Your task to perform on an android device: delete location history Image 0: 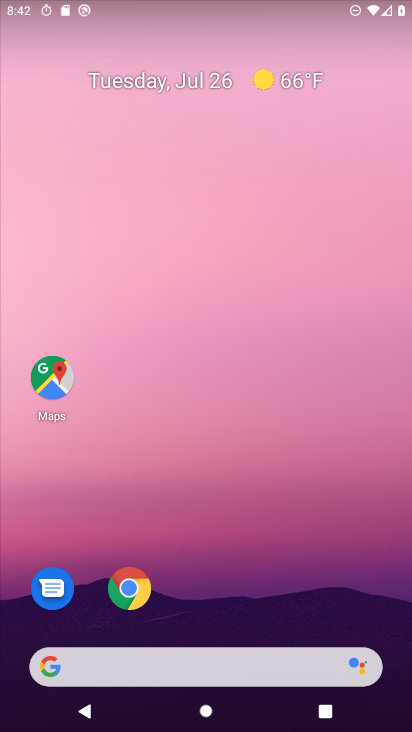
Step 0: drag from (225, 690) to (219, 273)
Your task to perform on an android device: delete location history Image 1: 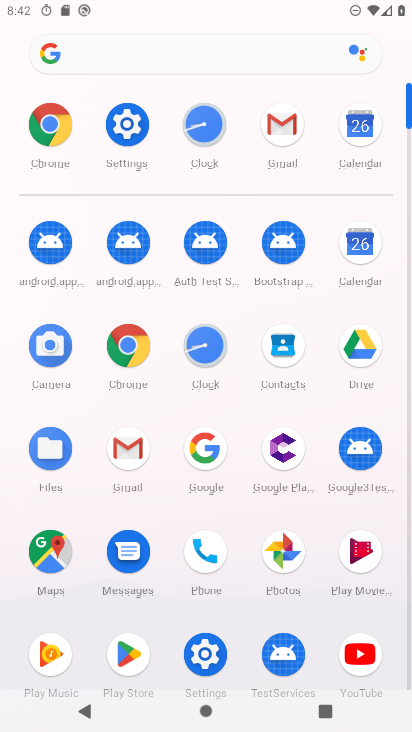
Step 1: click (51, 549)
Your task to perform on an android device: delete location history Image 2: 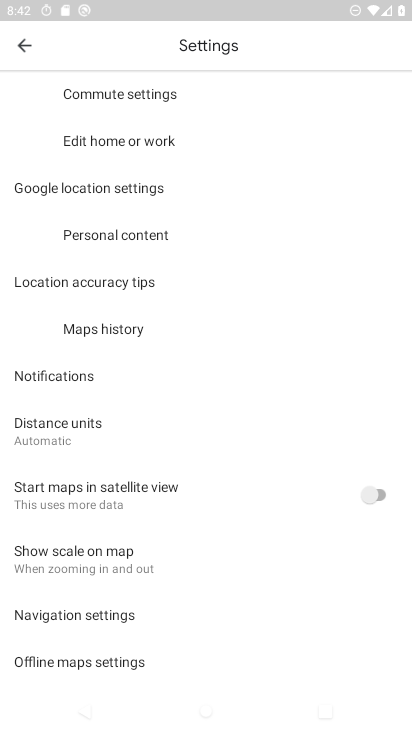
Step 2: click (20, 42)
Your task to perform on an android device: delete location history Image 3: 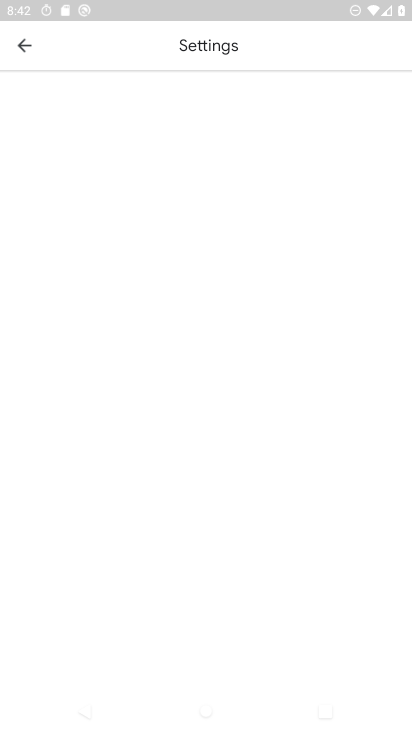
Step 3: click (25, 46)
Your task to perform on an android device: delete location history Image 4: 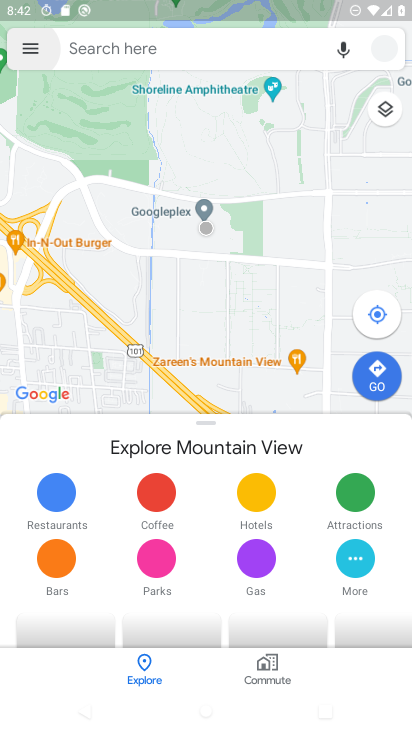
Step 4: click (29, 47)
Your task to perform on an android device: delete location history Image 5: 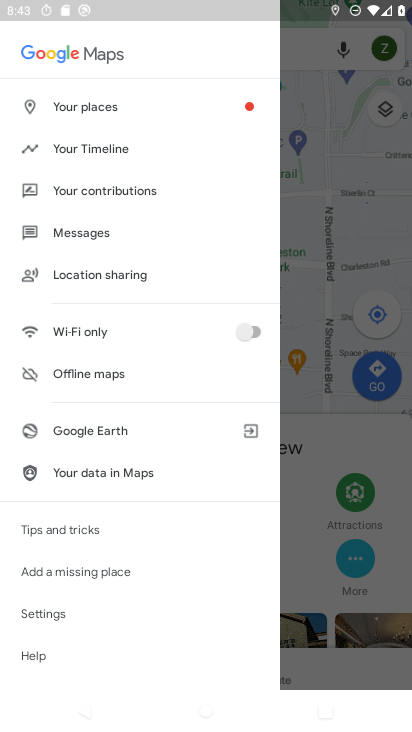
Step 5: click (75, 144)
Your task to perform on an android device: delete location history Image 6: 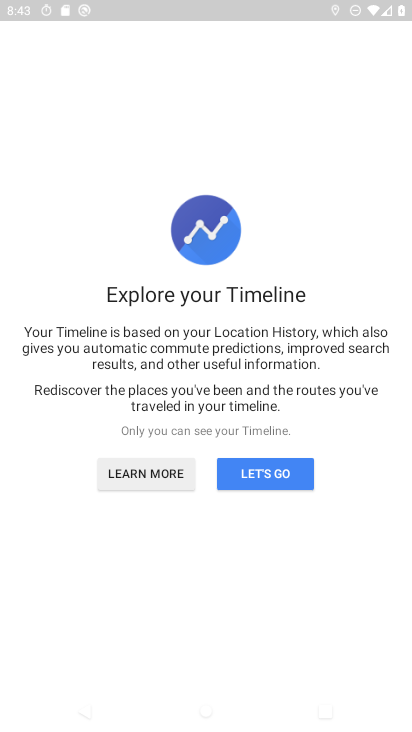
Step 6: click (272, 474)
Your task to perform on an android device: delete location history Image 7: 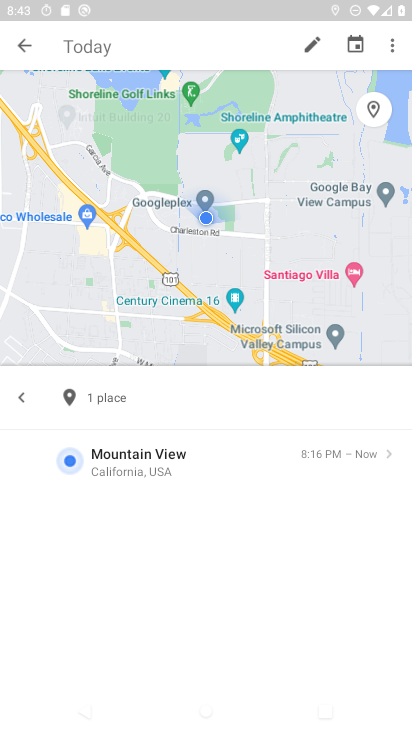
Step 7: click (391, 51)
Your task to perform on an android device: delete location history Image 8: 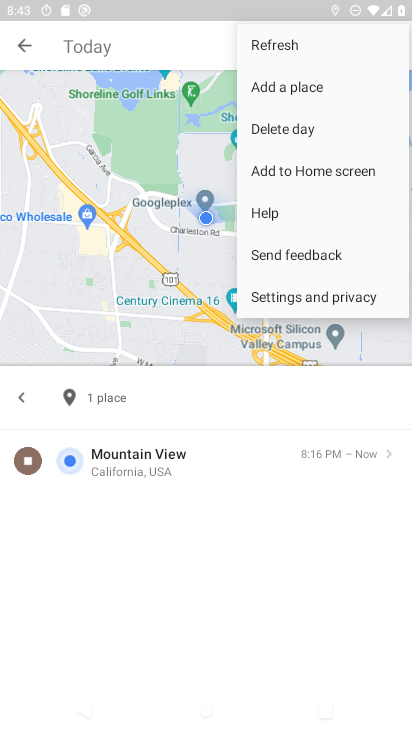
Step 8: click (274, 298)
Your task to perform on an android device: delete location history Image 9: 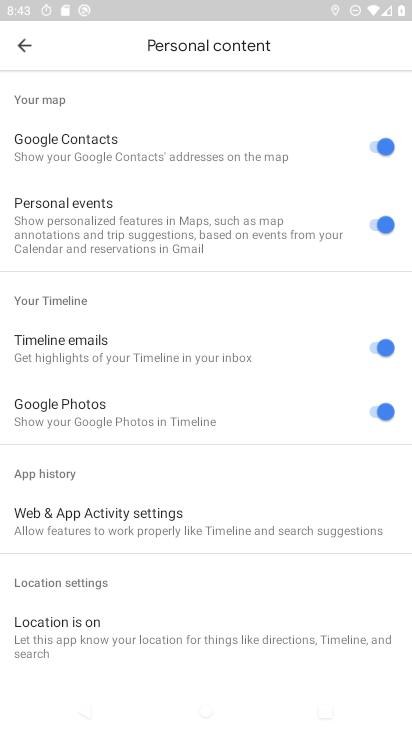
Step 9: task complete